Your task to perform on an android device: delete location history Image 0: 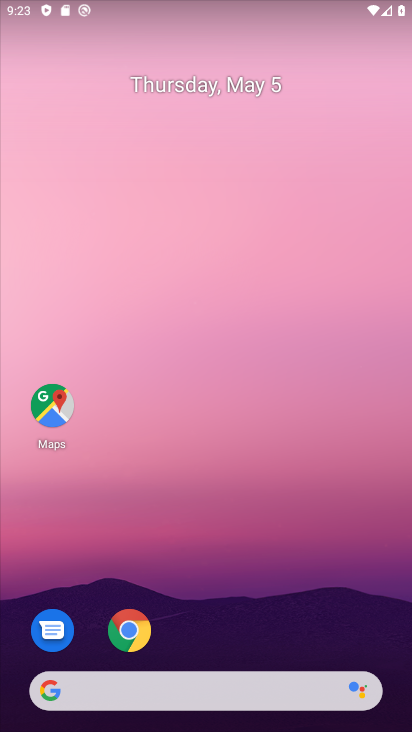
Step 0: drag from (205, 528) to (219, 82)
Your task to perform on an android device: delete location history Image 1: 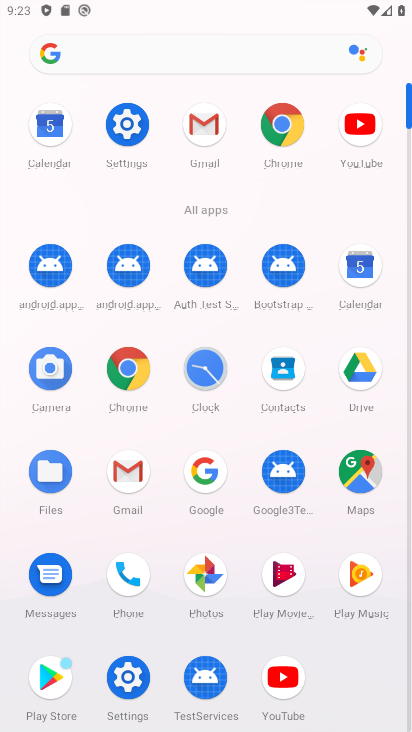
Step 1: click (123, 687)
Your task to perform on an android device: delete location history Image 2: 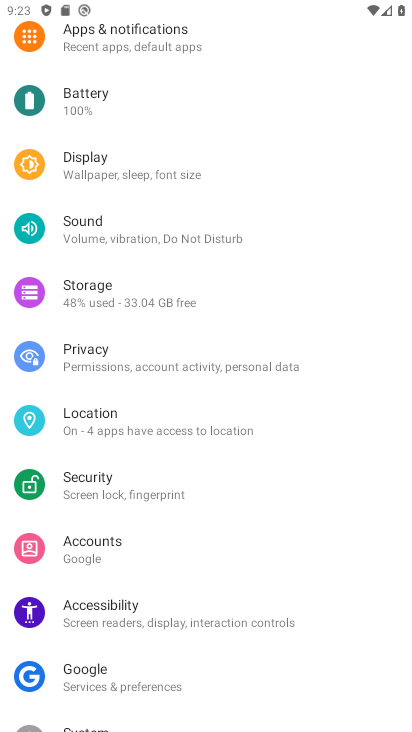
Step 2: click (165, 431)
Your task to perform on an android device: delete location history Image 3: 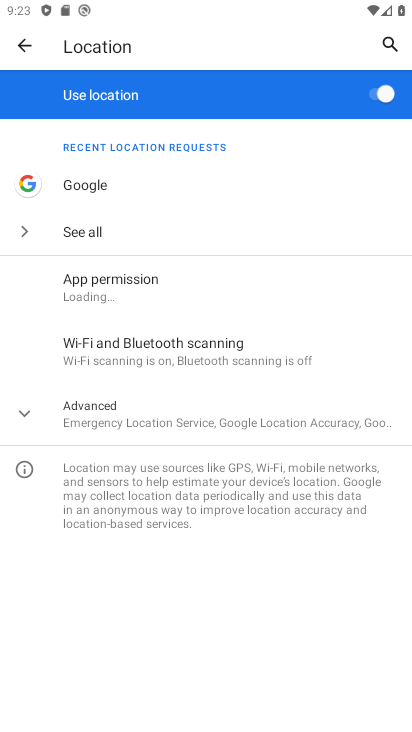
Step 3: click (19, 410)
Your task to perform on an android device: delete location history Image 4: 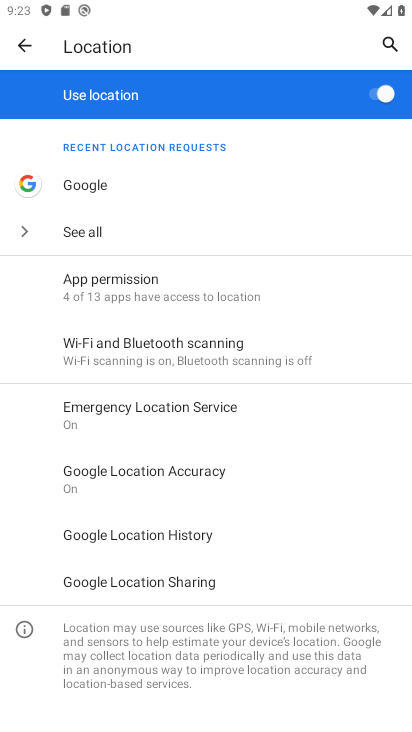
Step 4: click (174, 537)
Your task to perform on an android device: delete location history Image 5: 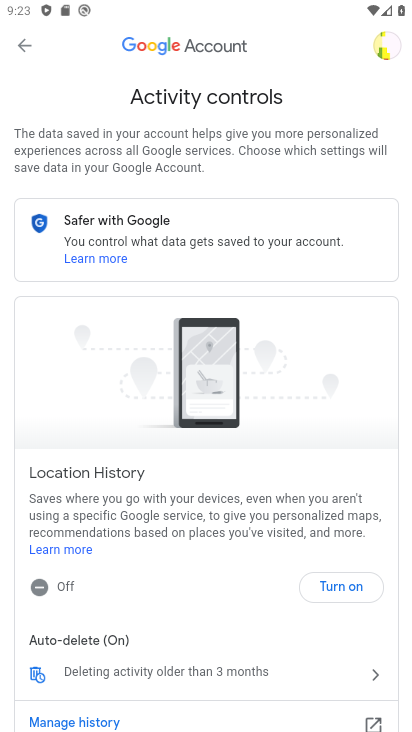
Step 5: click (108, 718)
Your task to perform on an android device: delete location history Image 6: 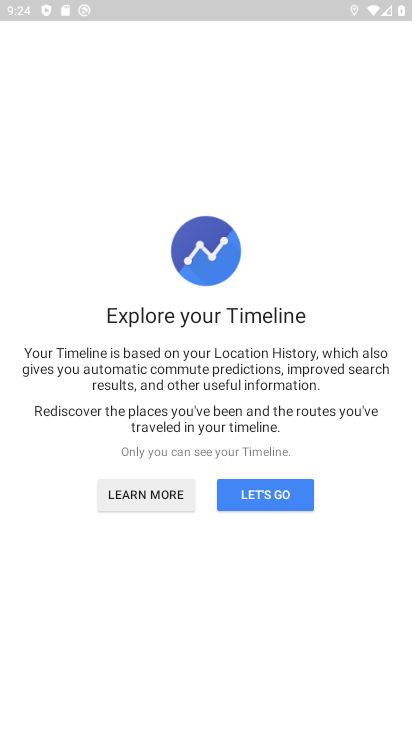
Step 6: click (256, 504)
Your task to perform on an android device: delete location history Image 7: 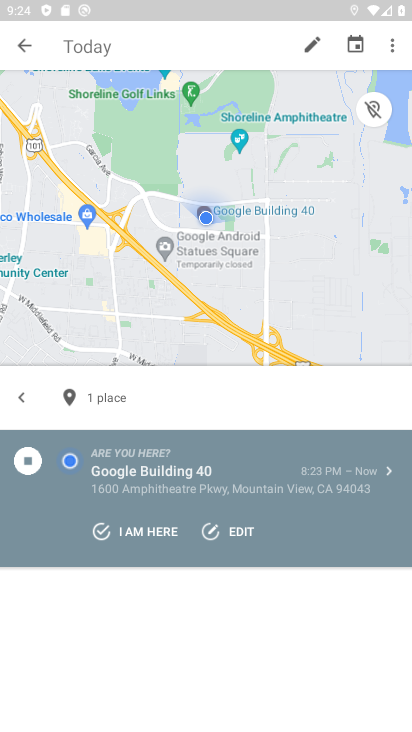
Step 7: task complete